Your task to perform on an android device: Find coffee shops on Maps Image 0: 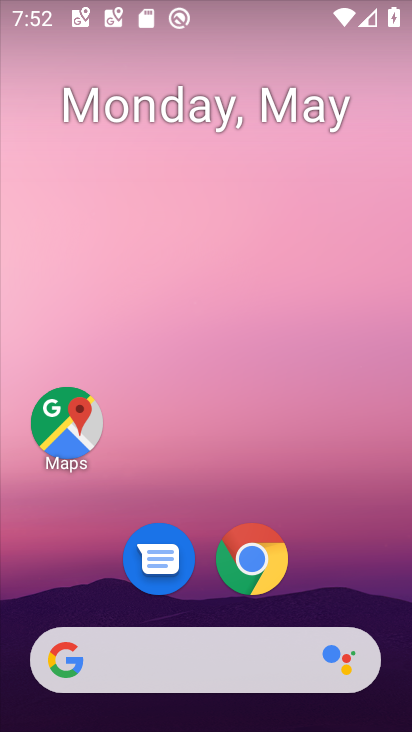
Step 0: drag from (388, 596) to (295, 57)
Your task to perform on an android device: Find coffee shops on Maps Image 1: 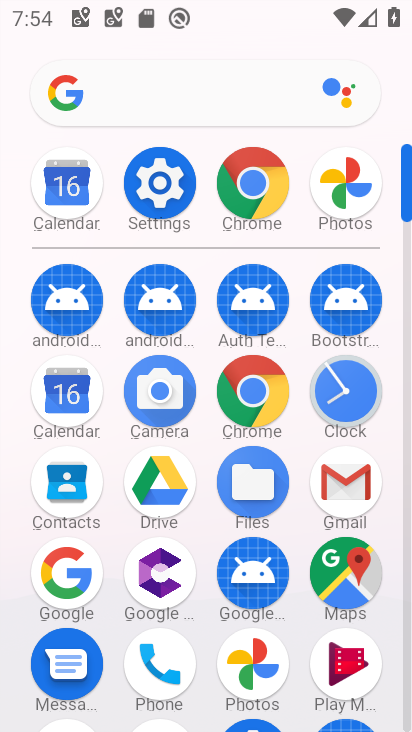
Step 1: click (334, 574)
Your task to perform on an android device: Find coffee shops on Maps Image 2: 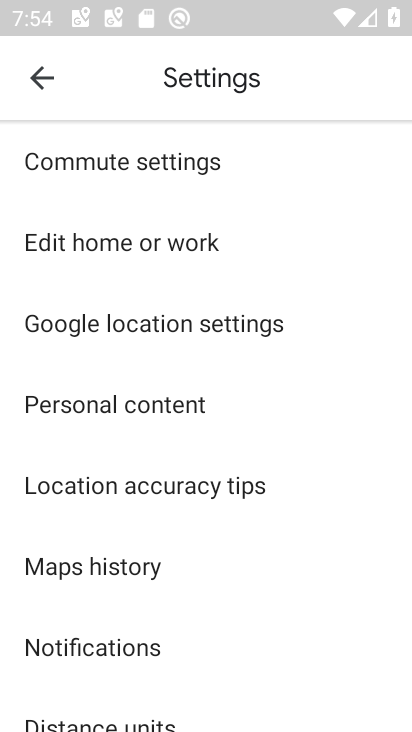
Step 2: press back button
Your task to perform on an android device: Find coffee shops on Maps Image 3: 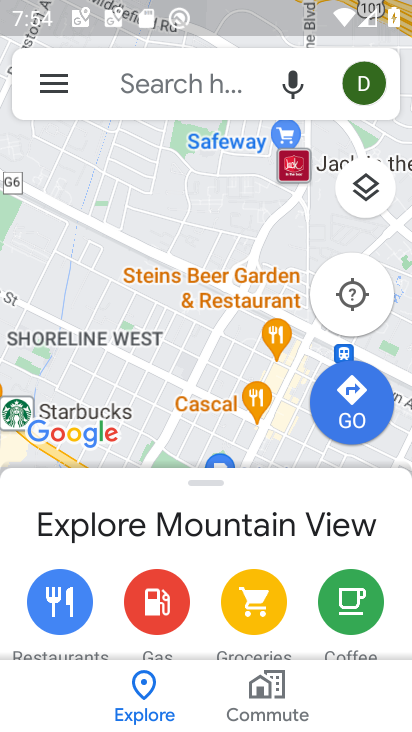
Step 3: click (114, 71)
Your task to perform on an android device: Find coffee shops on Maps Image 4: 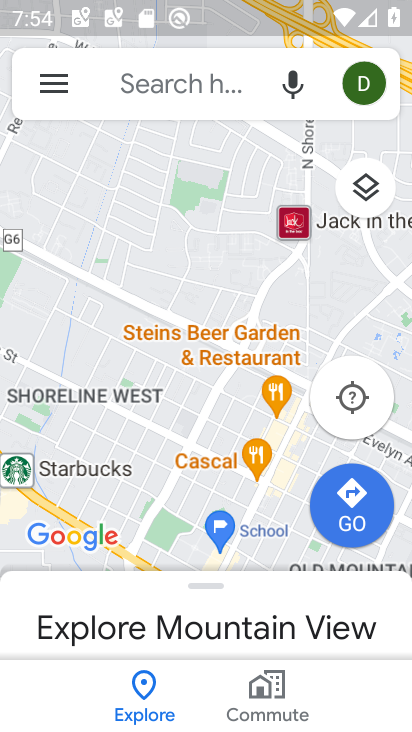
Step 4: click (185, 81)
Your task to perform on an android device: Find coffee shops on Maps Image 5: 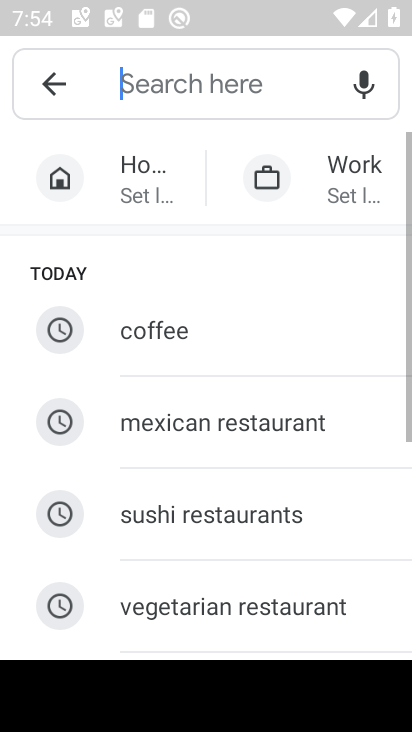
Step 5: click (238, 325)
Your task to perform on an android device: Find coffee shops on Maps Image 6: 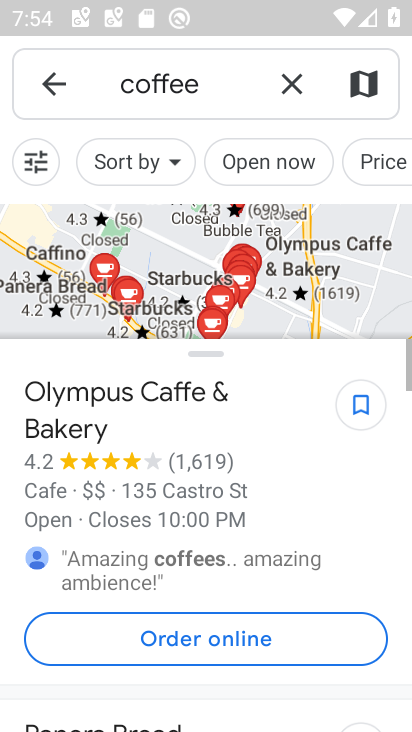
Step 6: task complete